Your task to perform on an android device: Turn off the flashlight Image 0: 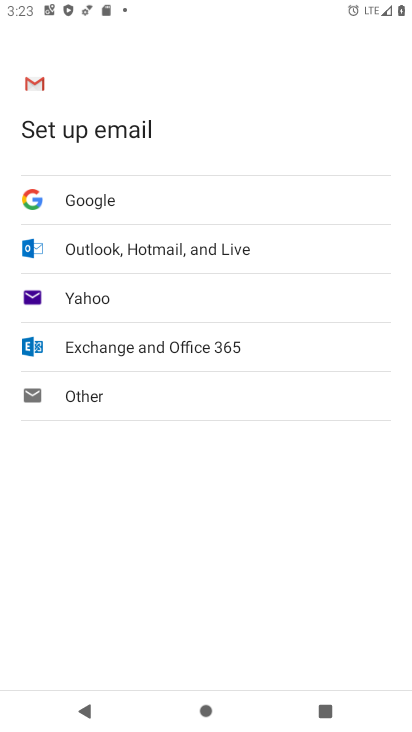
Step 0: press back button
Your task to perform on an android device: Turn off the flashlight Image 1: 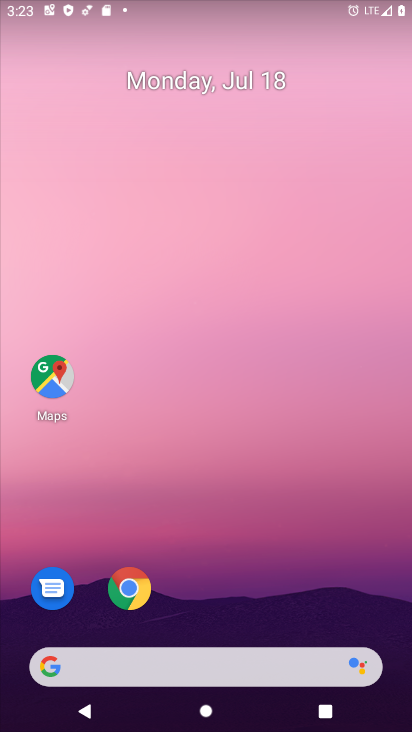
Step 1: drag from (194, 599) to (358, 3)
Your task to perform on an android device: Turn off the flashlight Image 2: 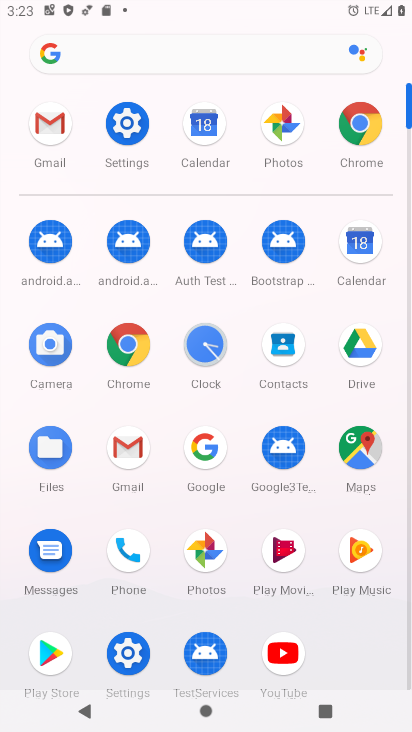
Step 2: click (133, 109)
Your task to perform on an android device: Turn off the flashlight Image 3: 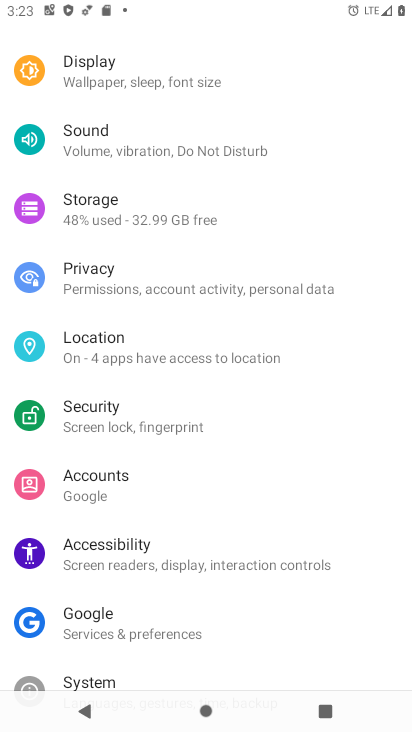
Step 3: drag from (209, 153) to (155, 722)
Your task to perform on an android device: Turn off the flashlight Image 4: 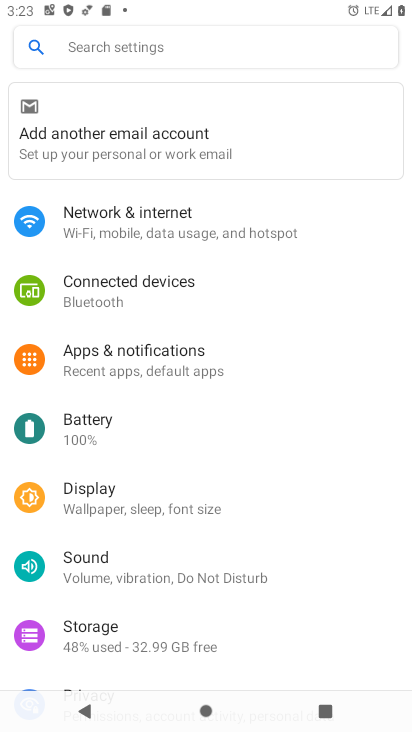
Step 4: click (155, 56)
Your task to perform on an android device: Turn off the flashlight Image 5: 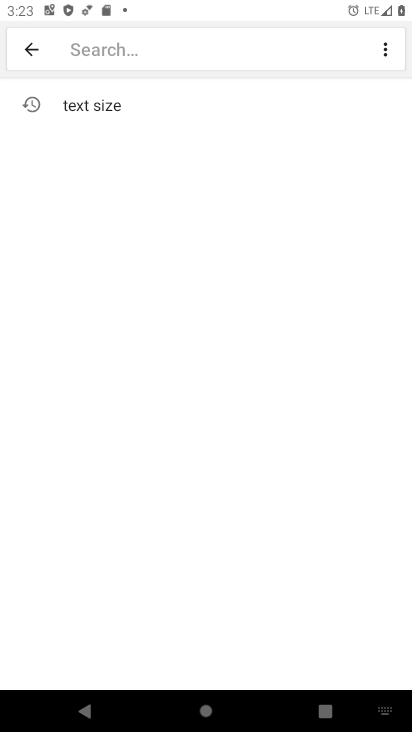
Step 5: click (143, 53)
Your task to perform on an android device: Turn off the flashlight Image 6: 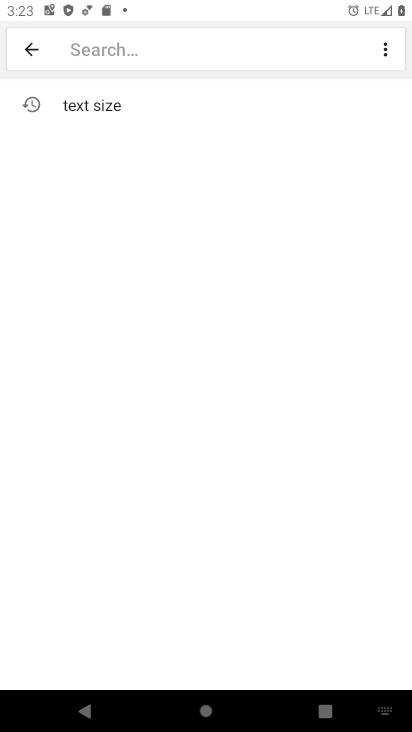
Step 6: click (129, 40)
Your task to perform on an android device: Turn off the flashlight Image 7: 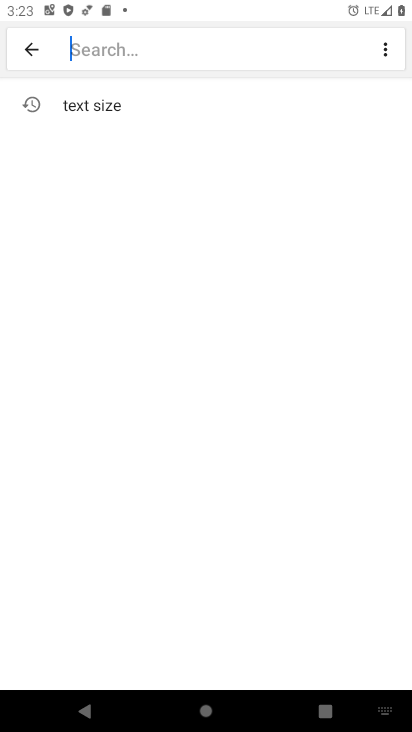
Step 7: click (129, 40)
Your task to perform on an android device: Turn off the flashlight Image 8: 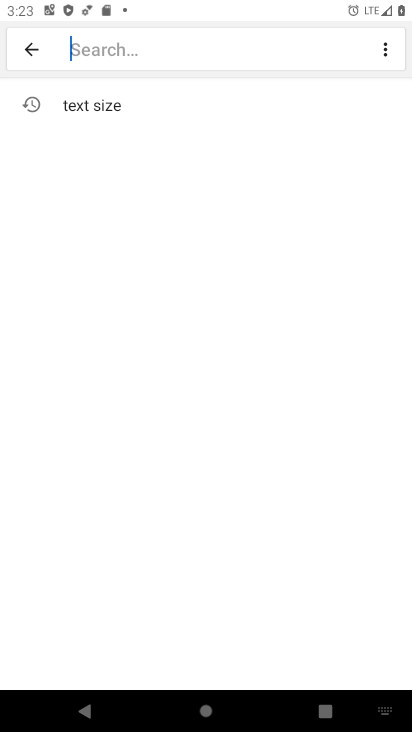
Step 8: type "flashlight"
Your task to perform on an android device: Turn off the flashlight Image 9: 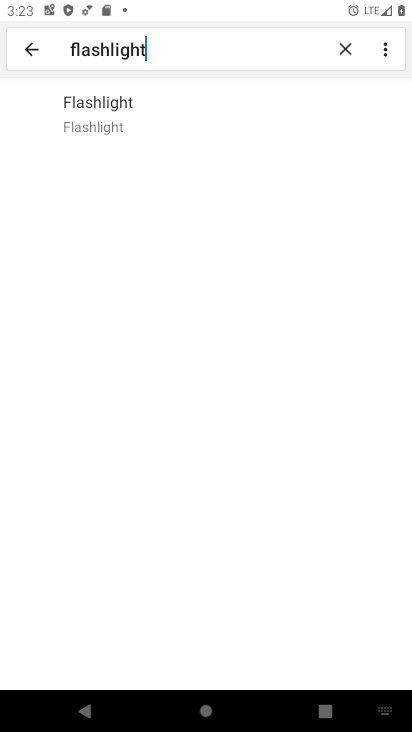
Step 9: click (68, 129)
Your task to perform on an android device: Turn off the flashlight Image 10: 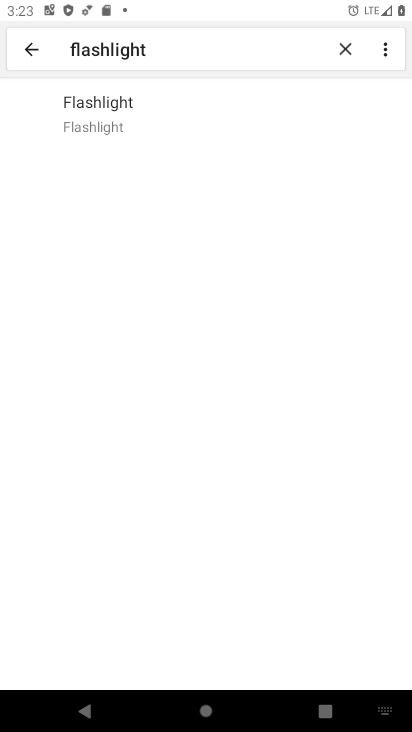
Step 10: task complete